Your task to perform on an android device: toggle data saver in the chrome app Image 0: 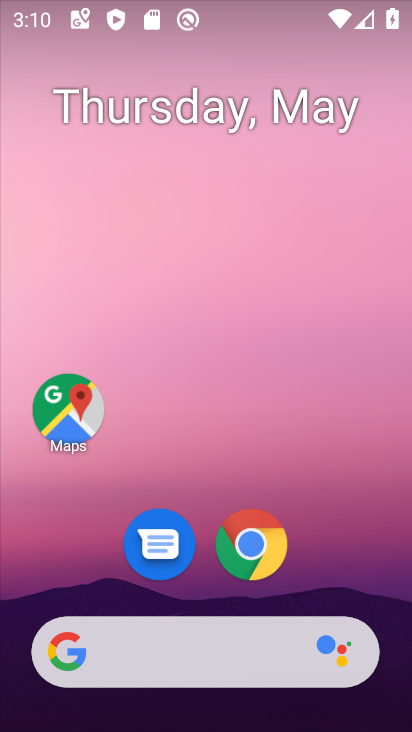
Step 0: click (262, 534)
Your task to perform on an android device: toggle data saver in the chrome app Image 1: 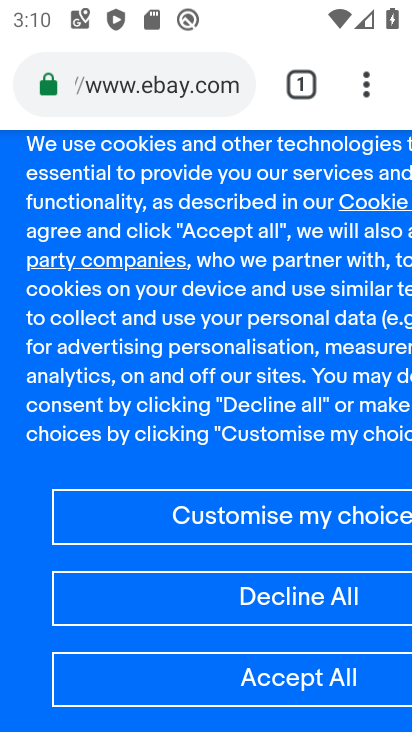
Step 1: click (377, 97)
Your task to perform on an android device: toggle data saver in the chrome app Image 2: 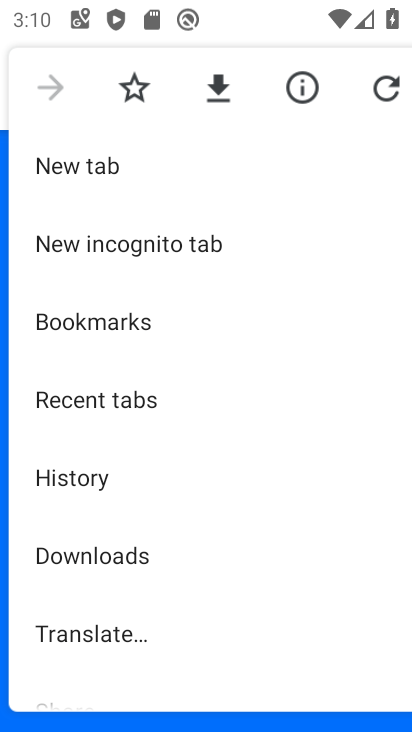
Step 2: drag from (159, 484) to (168, 183)
Your task to perform on an android device: toggle data saver in the chrome app Image 3: 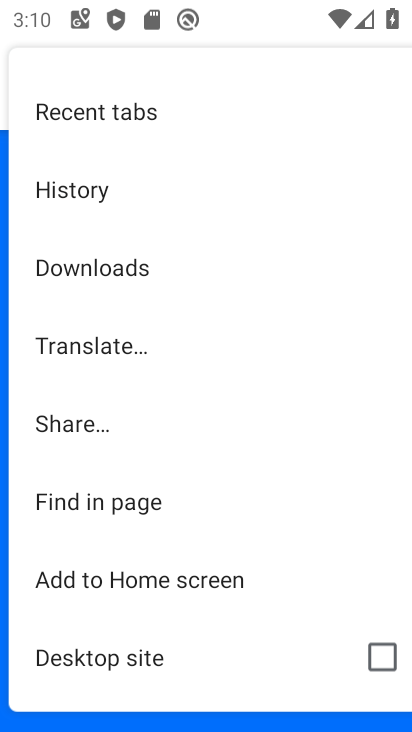
Step 3: drag from (91, 489) to (124, 270)
Your task to perform on an android device: toggle data saver in the chrome app Image 4: 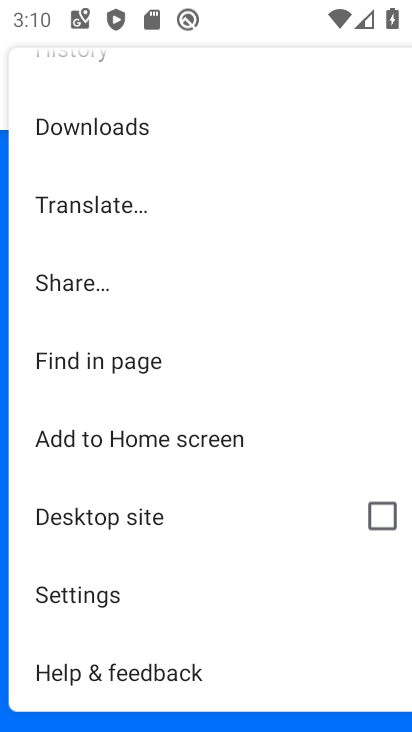
Step 4: click (71, 597)
Your task to perform on an android device: toggle data saver in the chrome app Image 5: 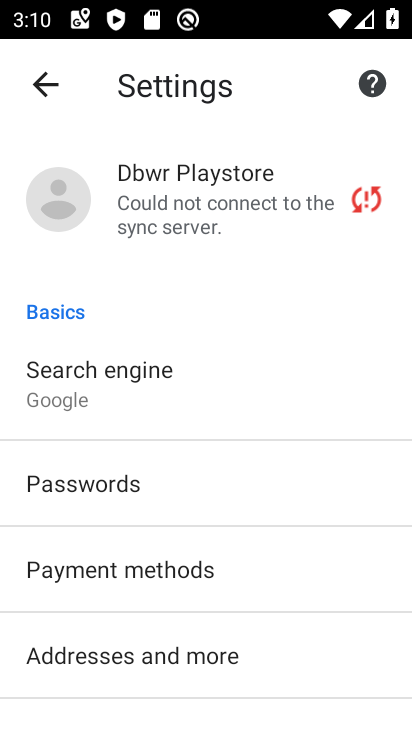
Step 5: drag from (221, 487) to (246, 291)
Your task to perform on an android device: toggle data saver in the chrome app Image 6: 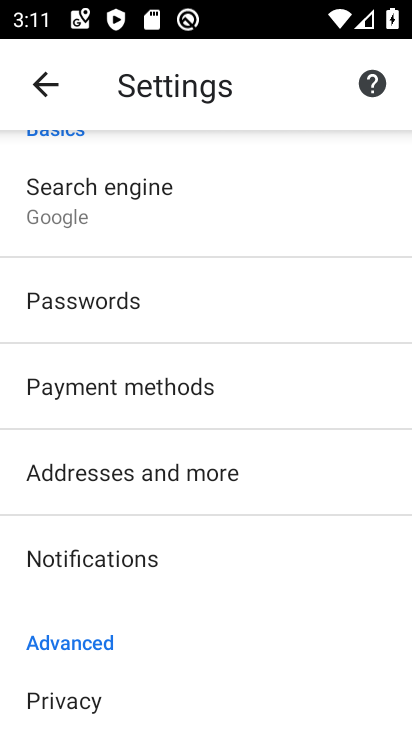
Step 6: drag from (186, 548) to (202, 263)
Your task to perform on an android device: toggle data saver in the chrome app Image 7: 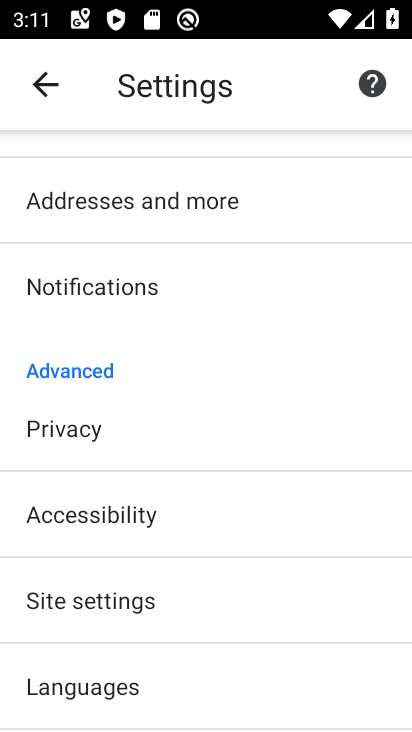
Step 7: drag from (125, 618) to (154, 425)
Your task to perform on an android device: toggle data saver in the chrome app Image 8: 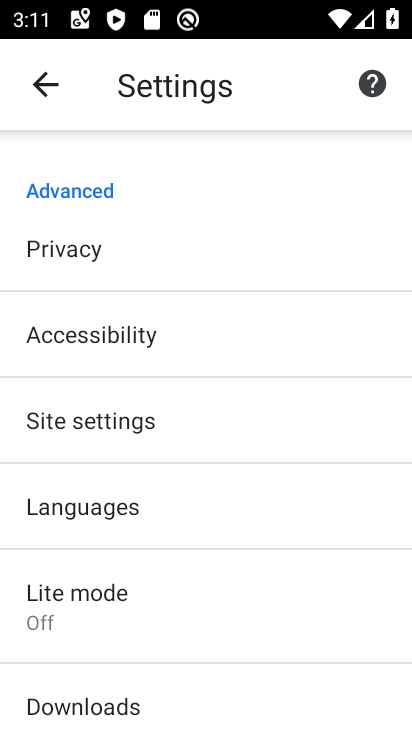
Step 8: click (124, 632)
Your task to perform on an android device: toggle data saver in the chrome app Image 9: 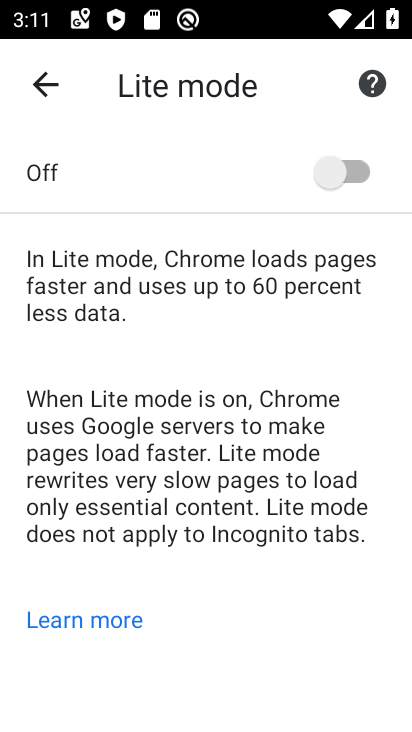
Step 9: click (358, 177)
Your task to perform on an android device: toggle data saver in the chrome app Image 10: 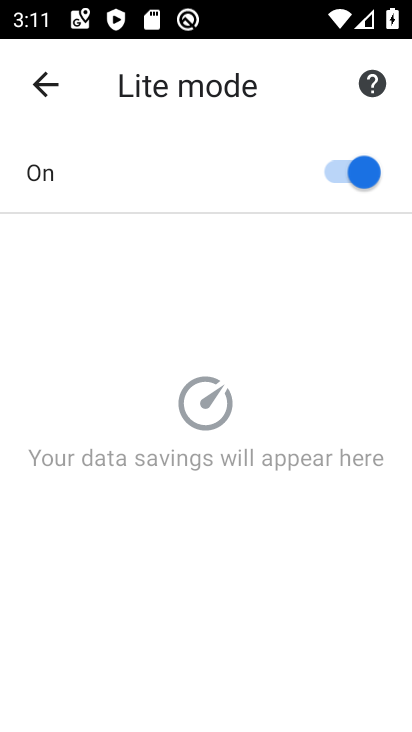
Step 10: task complete